Your task to perform on an android device: Open calendar and show me the third week of next month Image 0: 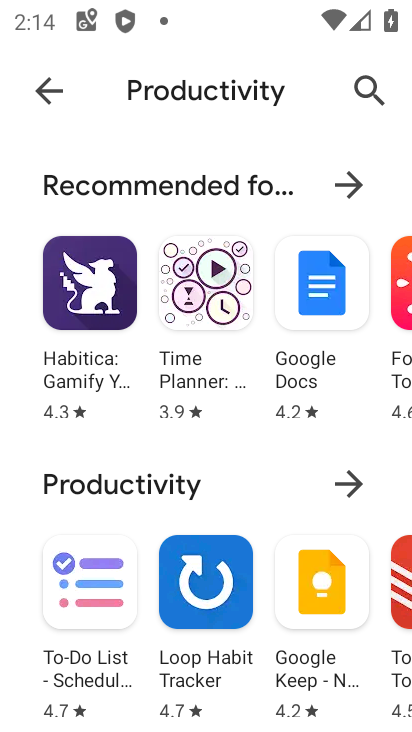
Step 0: press home button
Your task to perform on an android device: Open calendar and show me the third week of next month Image 1: 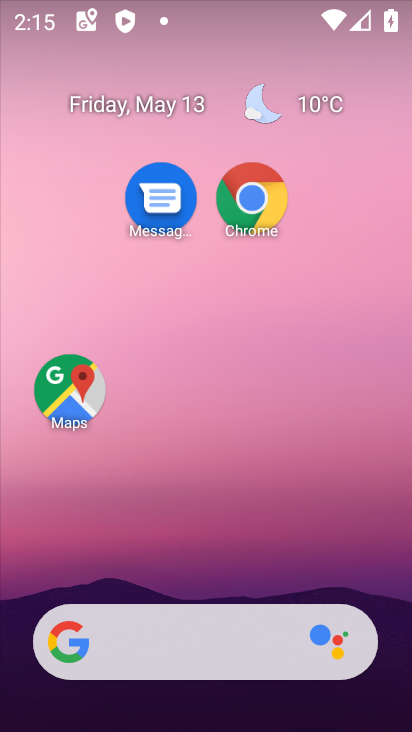
Step 1: drag from (166, 552) to (131, 6)
Your task to perform on an android device: Open calendar and show me the third week of next month Image 2: 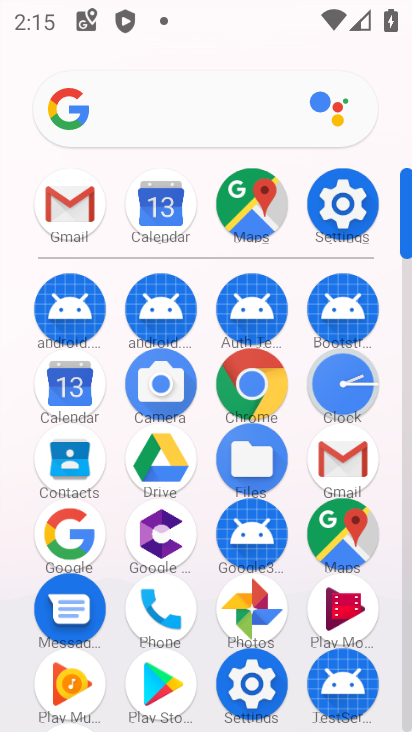
Step 2: click (65, 390)
Your task to perform on an android device: Open calendar and show me the third week of next month Image 3: 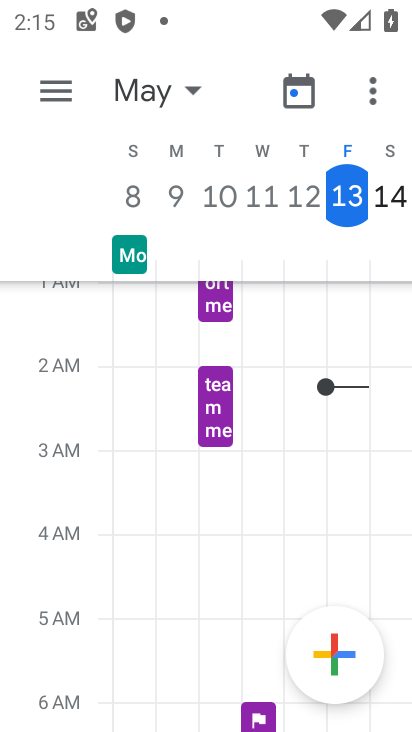
Step 3: task complete